Your task to perform on an android device: How much does a 3 bedroom apartment rent for in Dallas? Image 0: 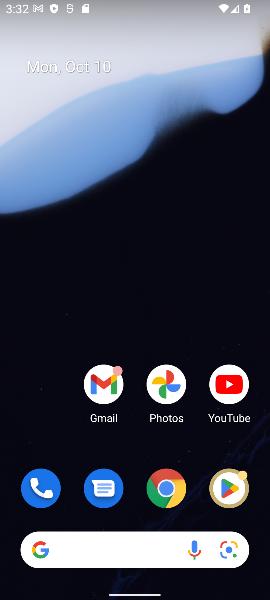
Step 0: click (109, 548)
Your task to perform on an android device: How much does a 3 bedroom apartment rent for in Dallas? Image 1: 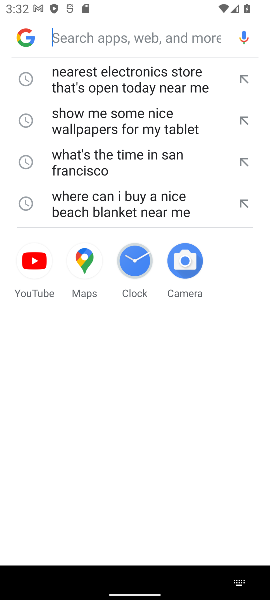
Step 1: click (128, 28)
Your task to perform on an android device: How much does a 3 bedroom apartment rent for in Dallas? Image 2: 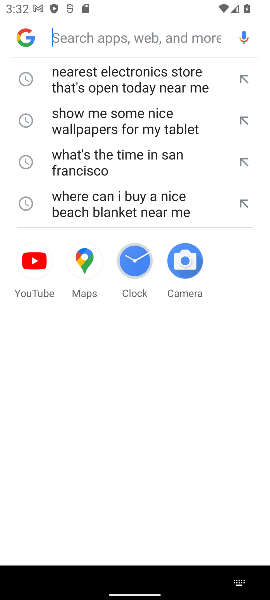
Step 2: type "How much does a 3 bedroom apartment rent for in Dallas?"
Your task to perform on an android device: How much does a 3 bedroom apartment rent for in Dallas? Image 3: 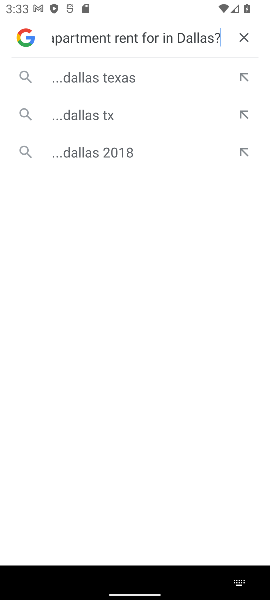
Step 3: click (131, 74)
Your task to perform on an android device: How much does a 3 bedroom apartment rent for in Dallas? Image 4: 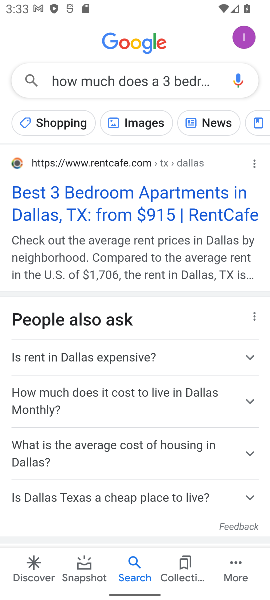
Step 4: click (172, 191)
Your task to perform on an android device: How much does a 3 bedroom apartment rent for in Dallas? Image 5: 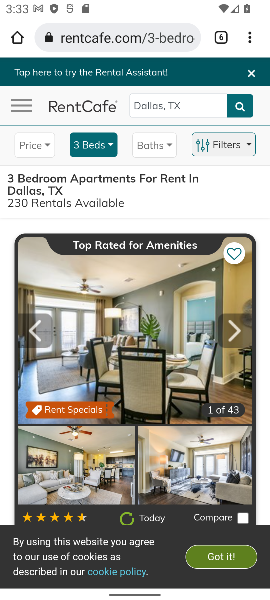
Step 5: task complete